Your task to perform on an android device: Open internet settings Image 0: 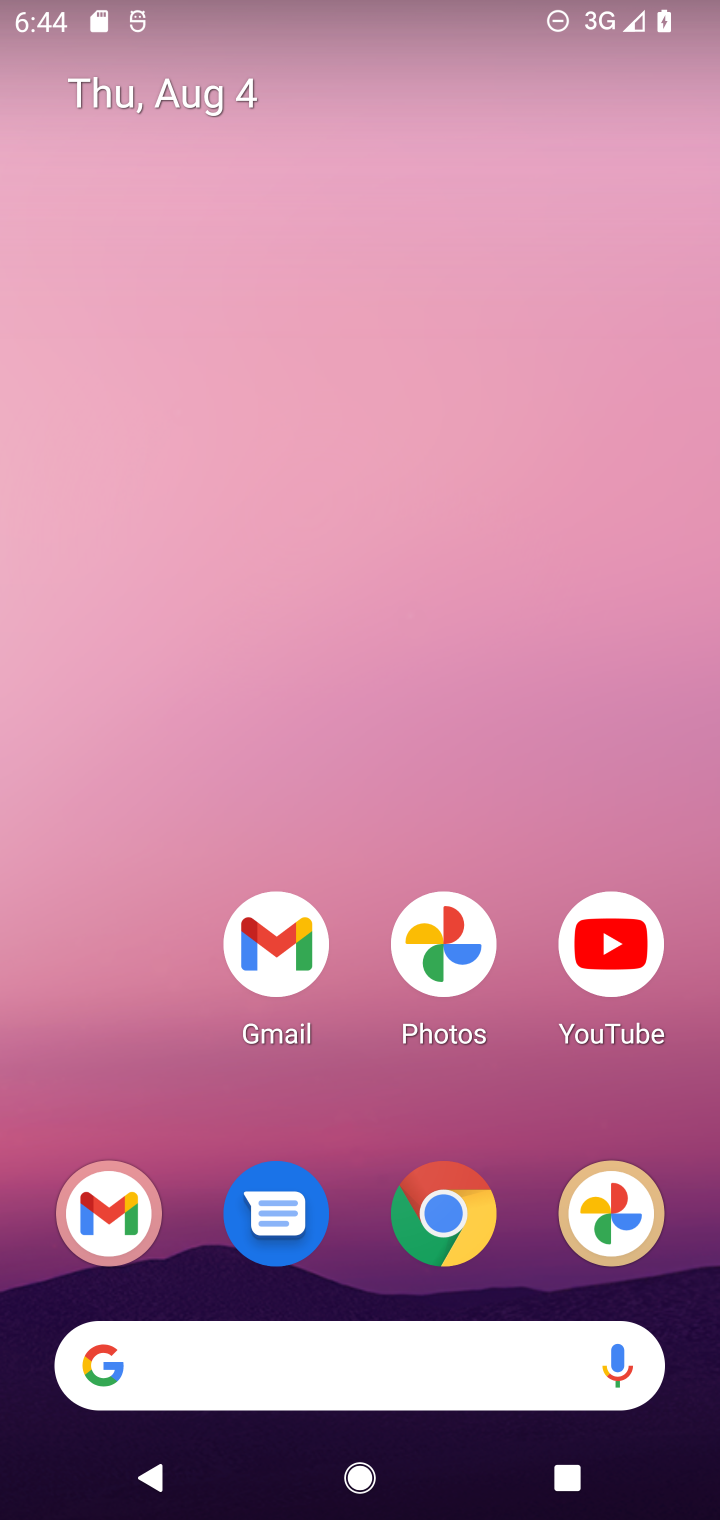
Step 0: press home button
Your task to perform on an android device: Open internet settings Image 1: 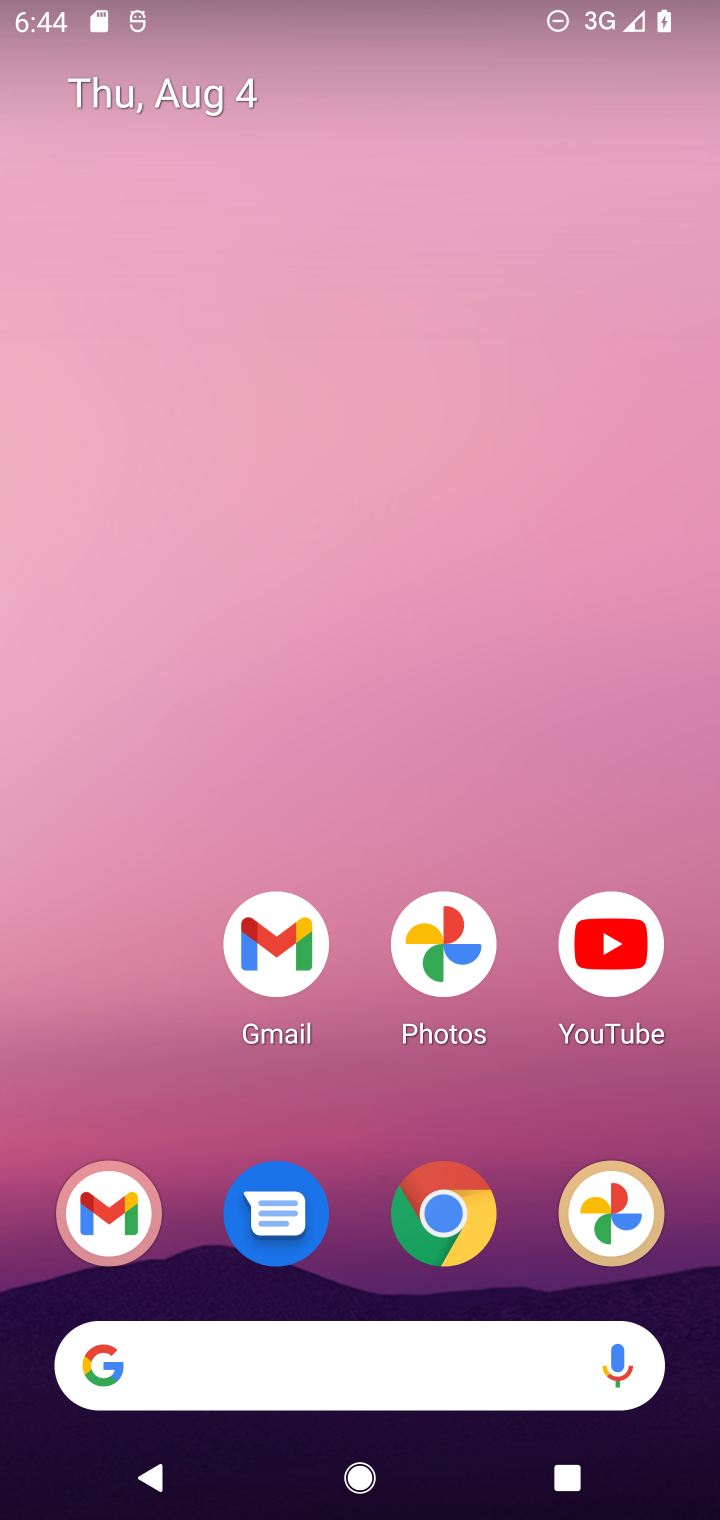
Step 1: drag from (175, 1136) to (147, 274)
Your task to perform on an android device: Open internet settings Image 2: 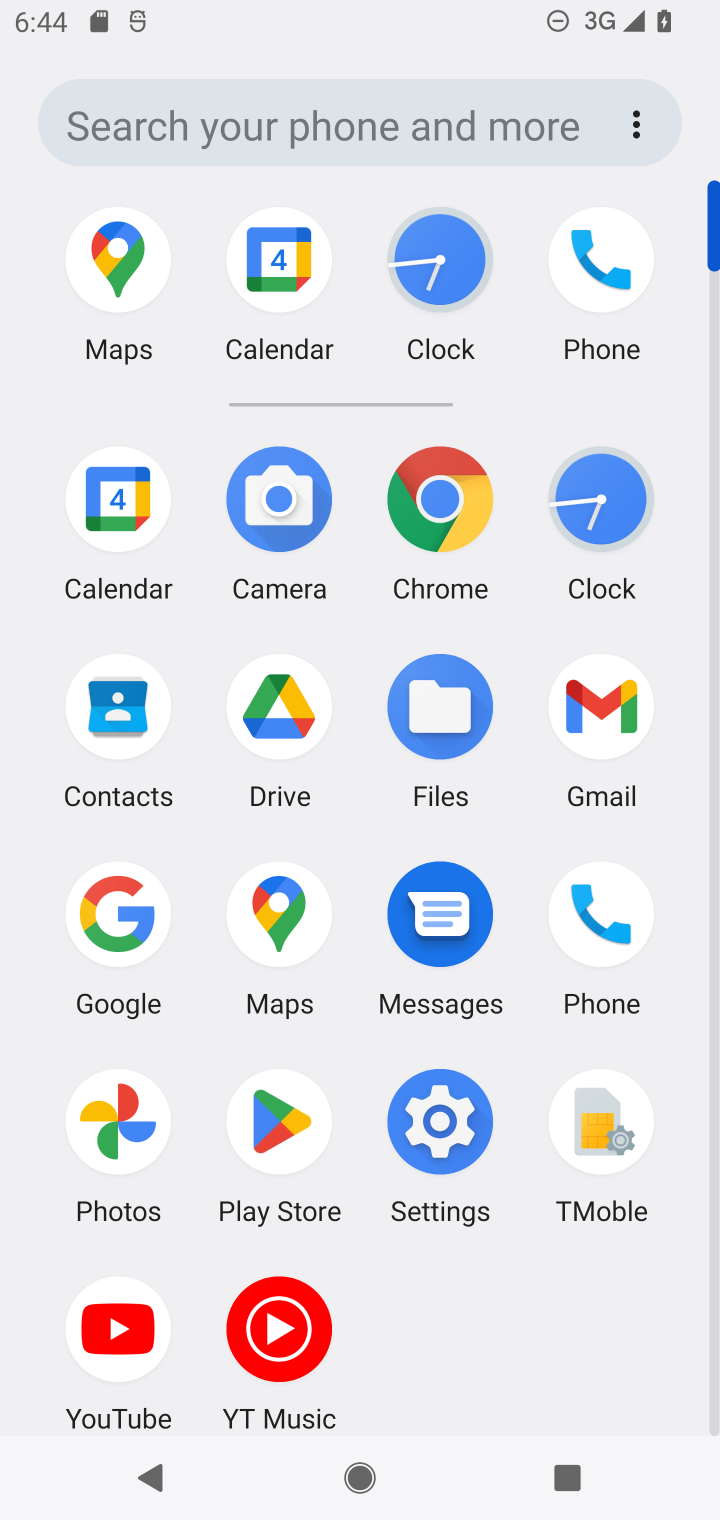
Step 2: click (445, 1130)
Your task to perform on an android device: Open internet settings Image 3: 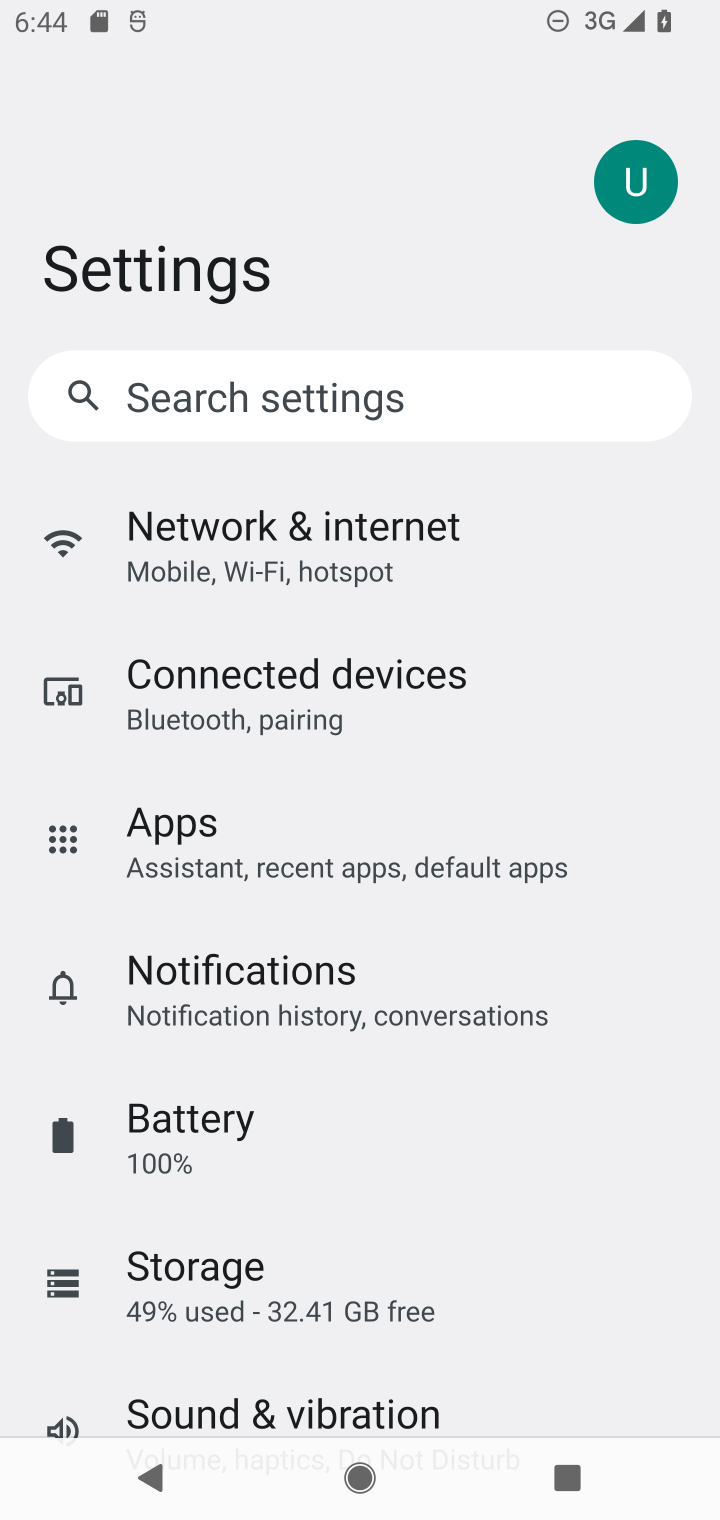
Step 3: drag from (582, 1250) to (564, 833)
Your task to perform on an android device: Open internet settings Image 4: 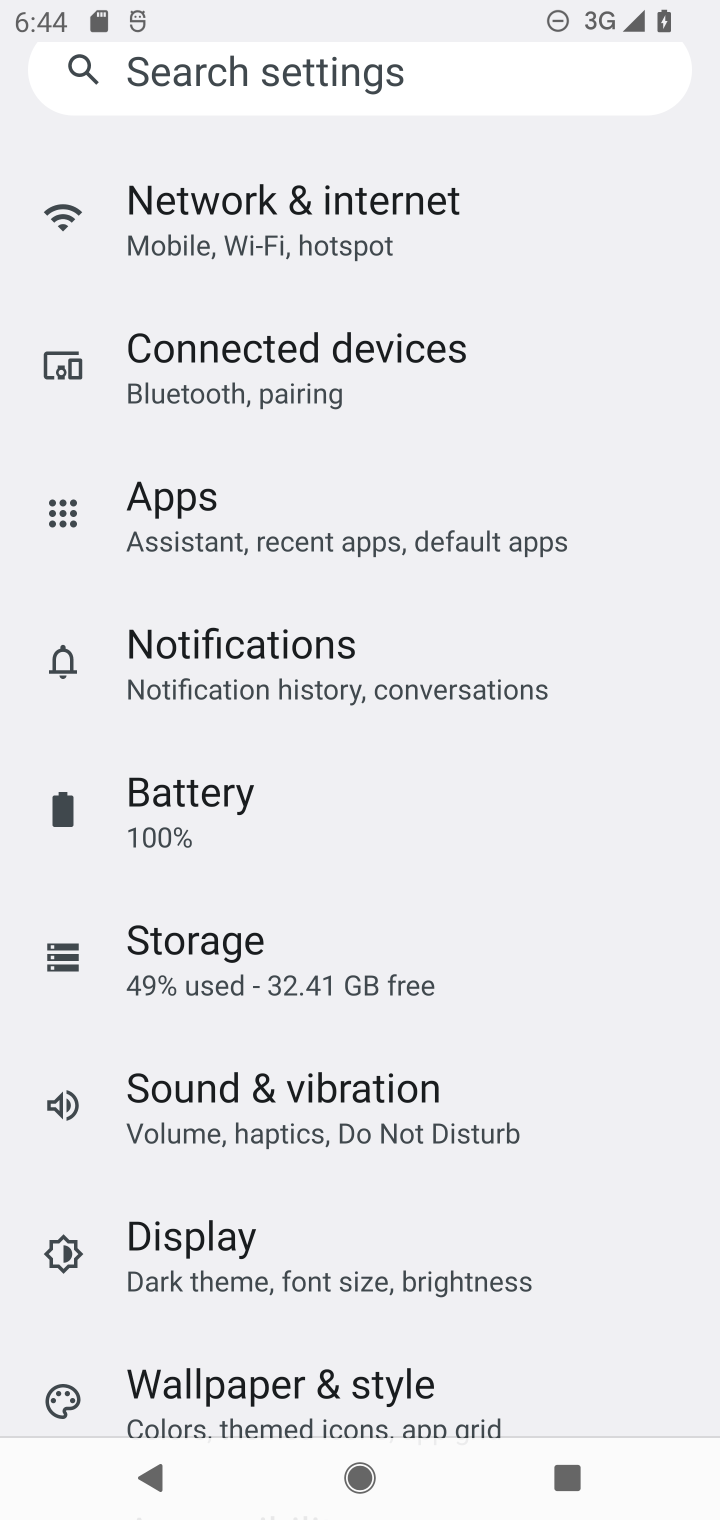
Step 4: drag from (599, 1284) to (616, 1010)
Your task to perform on an android device: Open internet settings Image 5: 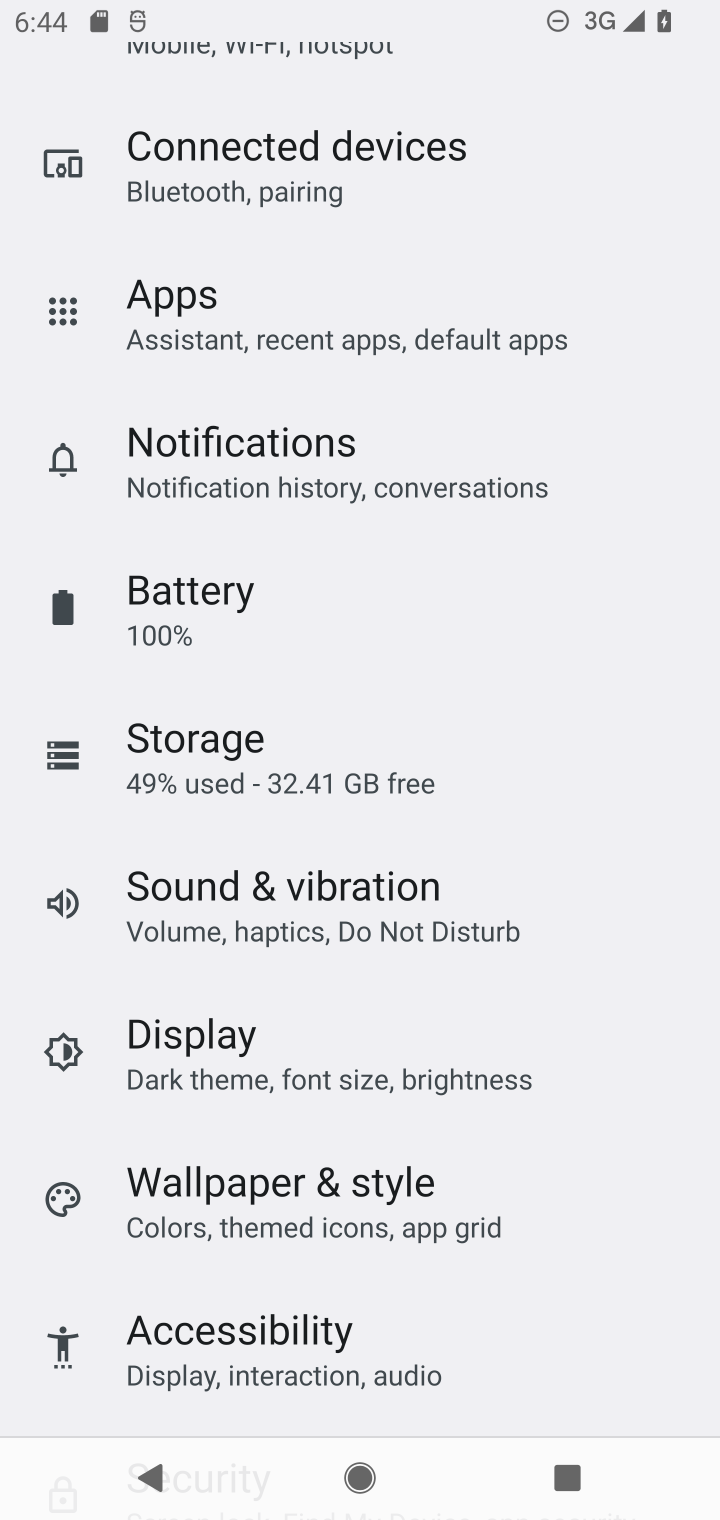
Step 5: drag from (618, 1282) to (626, 1015)
Your task to perform on an android device: Open internet settings Image 6: 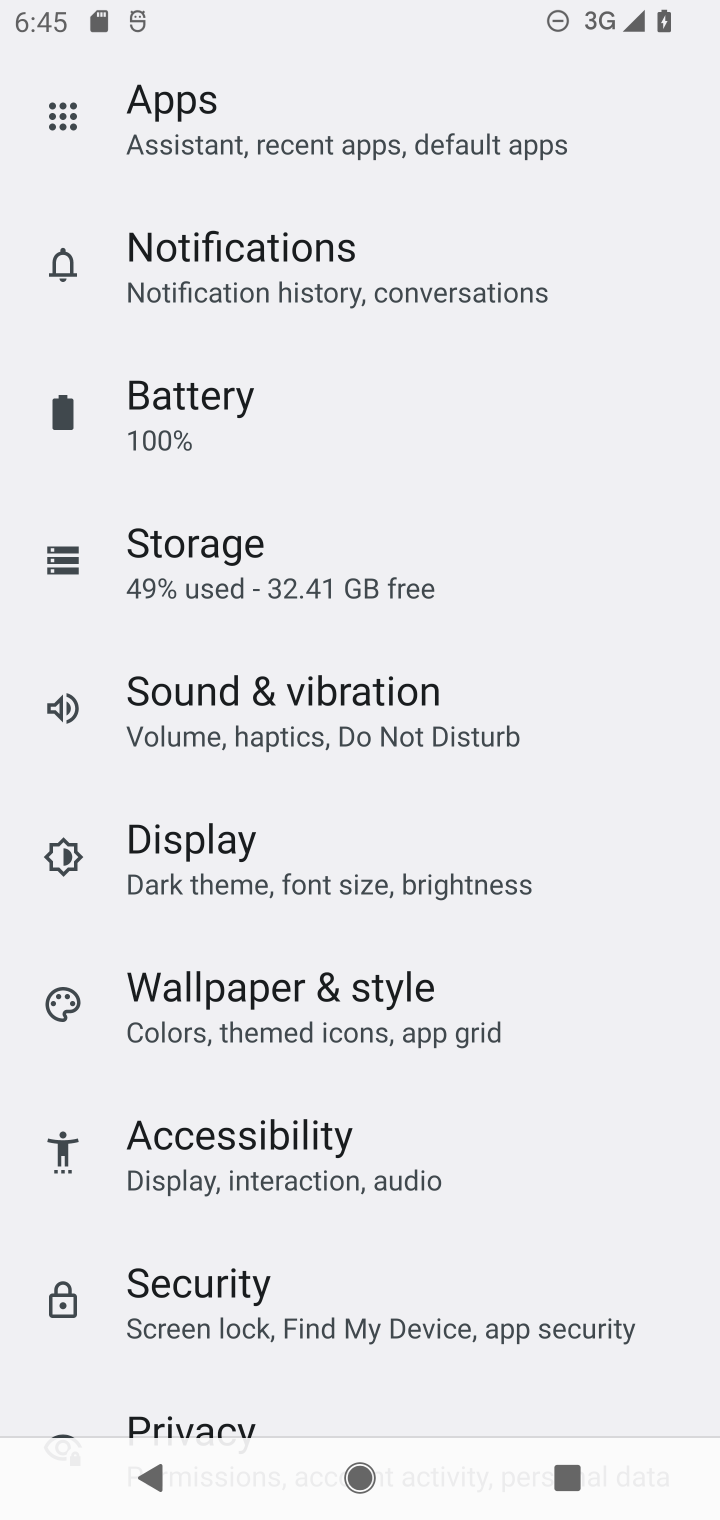
Step 6: drag from (603, 1131) to (587, 845)
Your task to perform on an android device: Open internet settings Image 7: 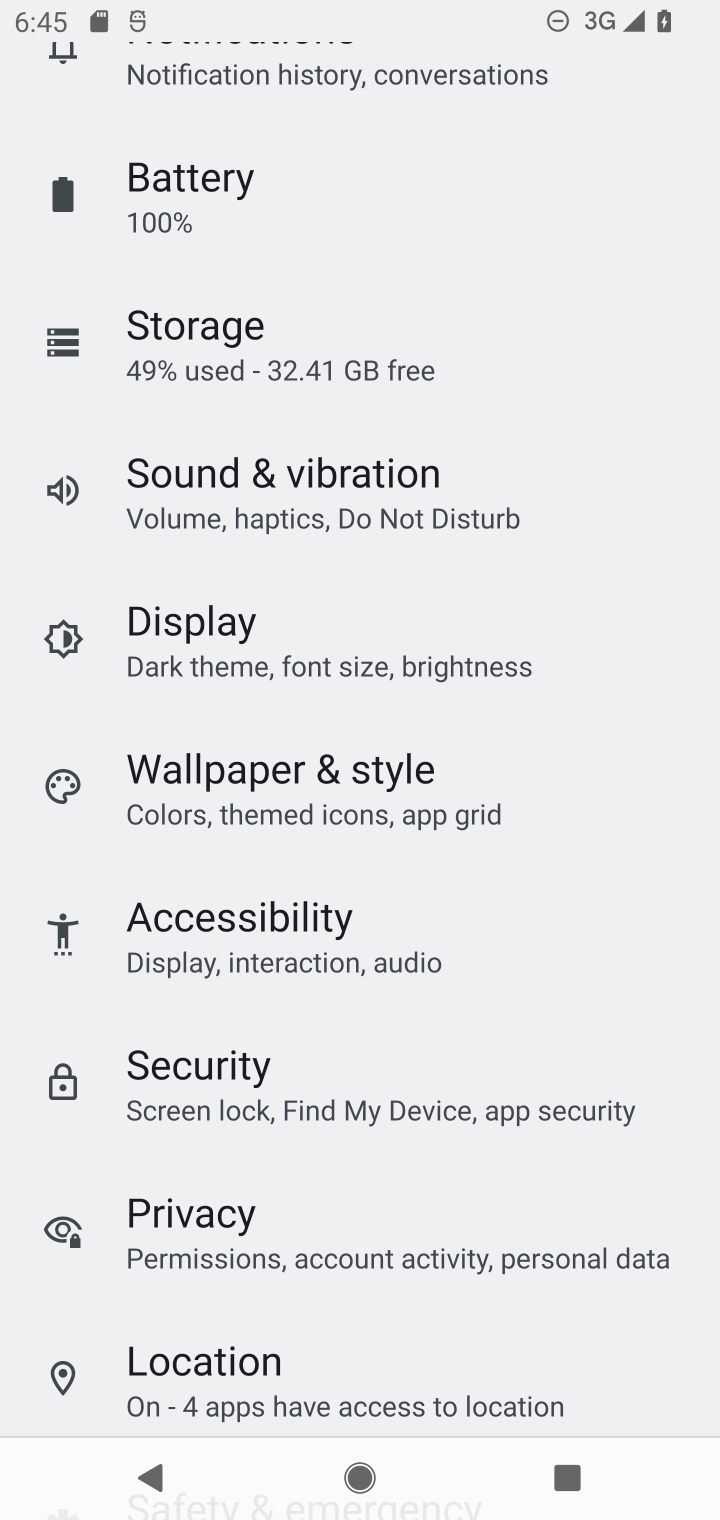
Step 7: drag from (557, 1201) to (558, 866)
Your task to perform on an android device: Open internet settings Image 8: 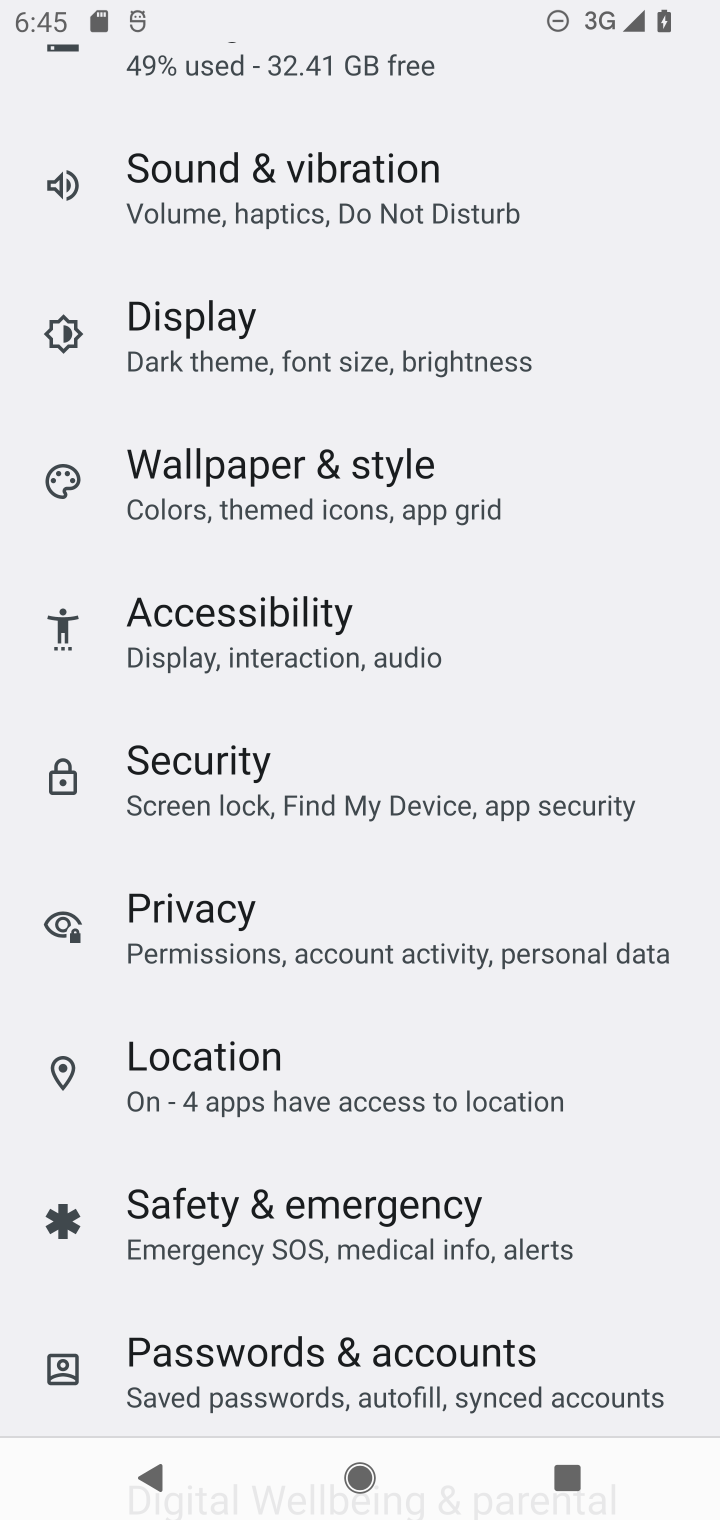
Step 8: drag from (573, 1193) to (528, 789)
Your task to perform on an android device: Open internet settings Image 9: 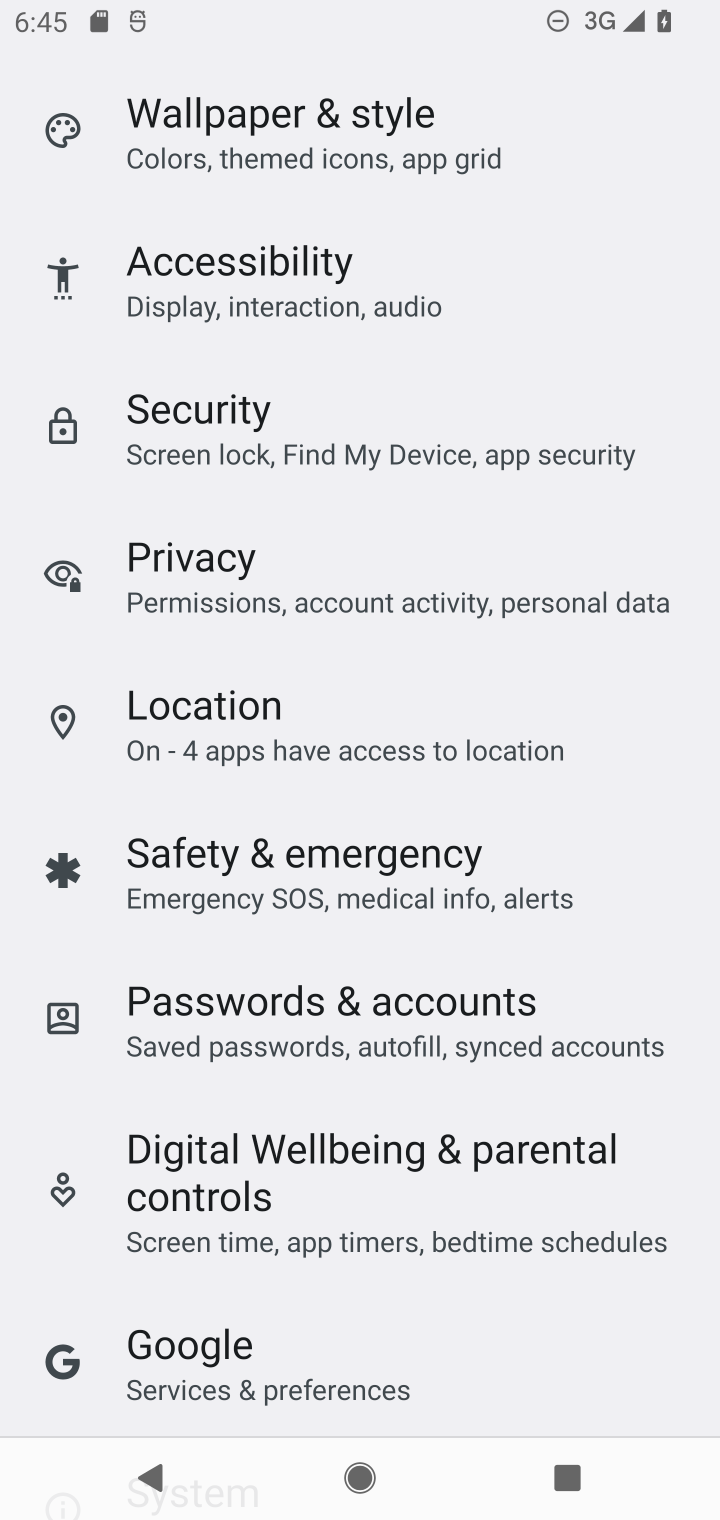
Step 9: drag from (534, 1244) to (534, 862)
Your task to perform on an android device: Open internet settings Image 10: 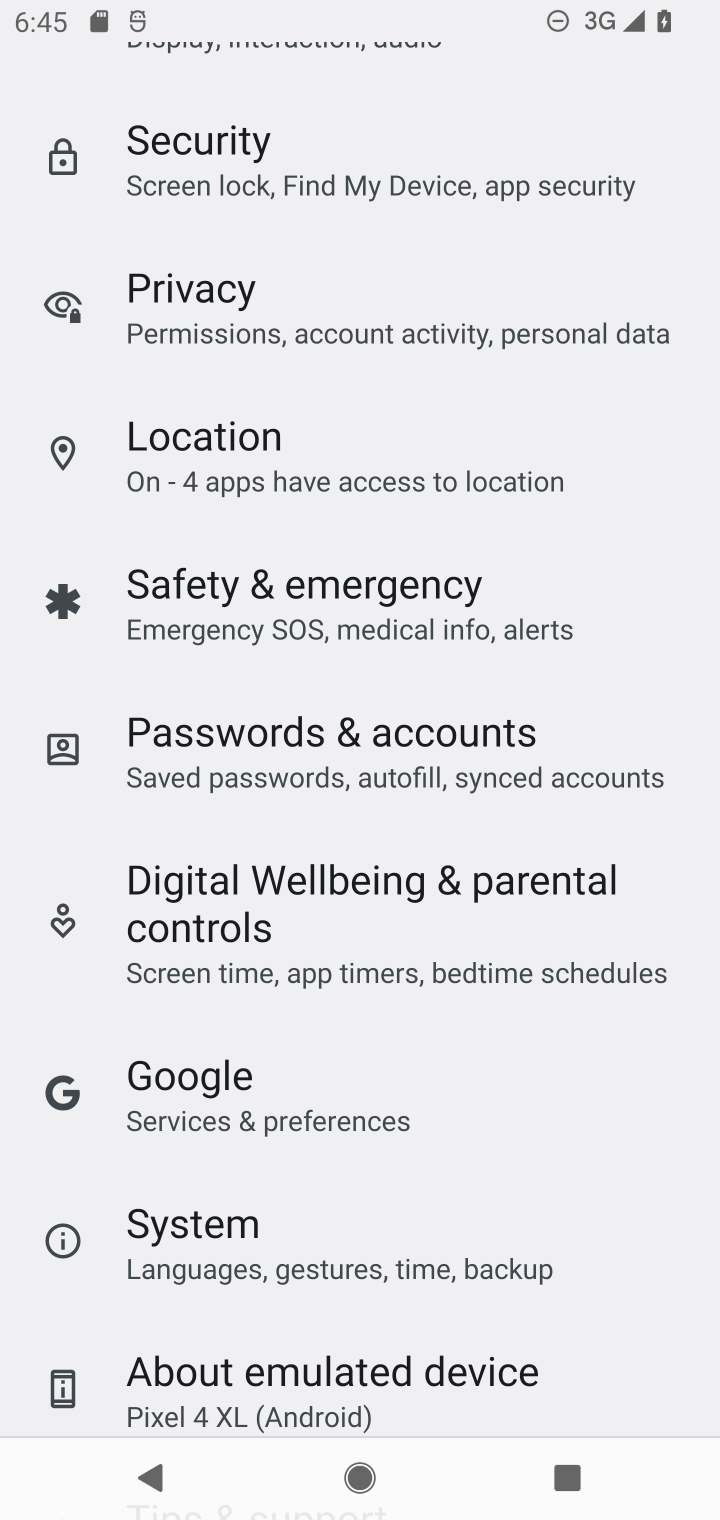
Step 10: drag from (495, 1191) to (495, 902)
Your task to perform on an android device: Open internet settings Image 11: 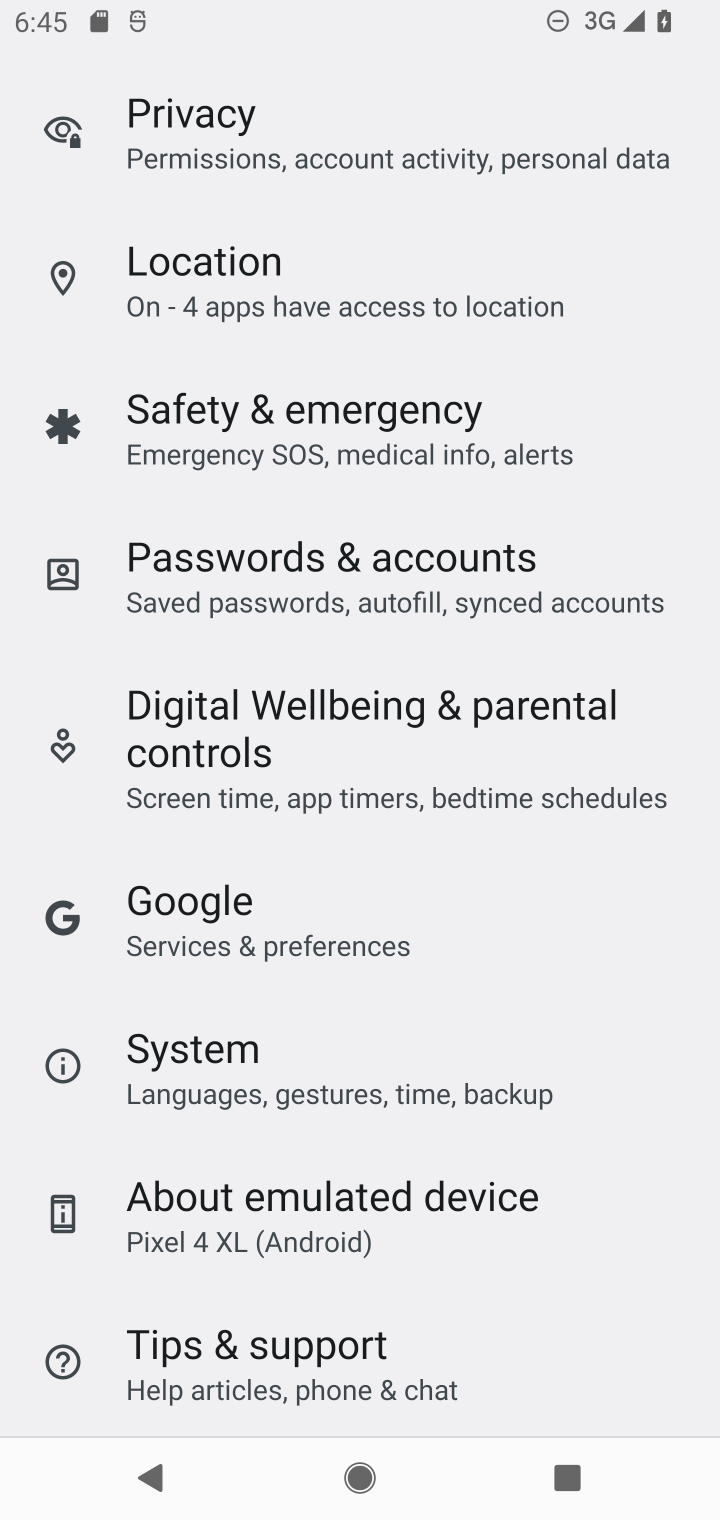
Step 11: drag from (503, 1257) to (506, 868)
Your task to perform on an android device: Open internet settings Image 12: 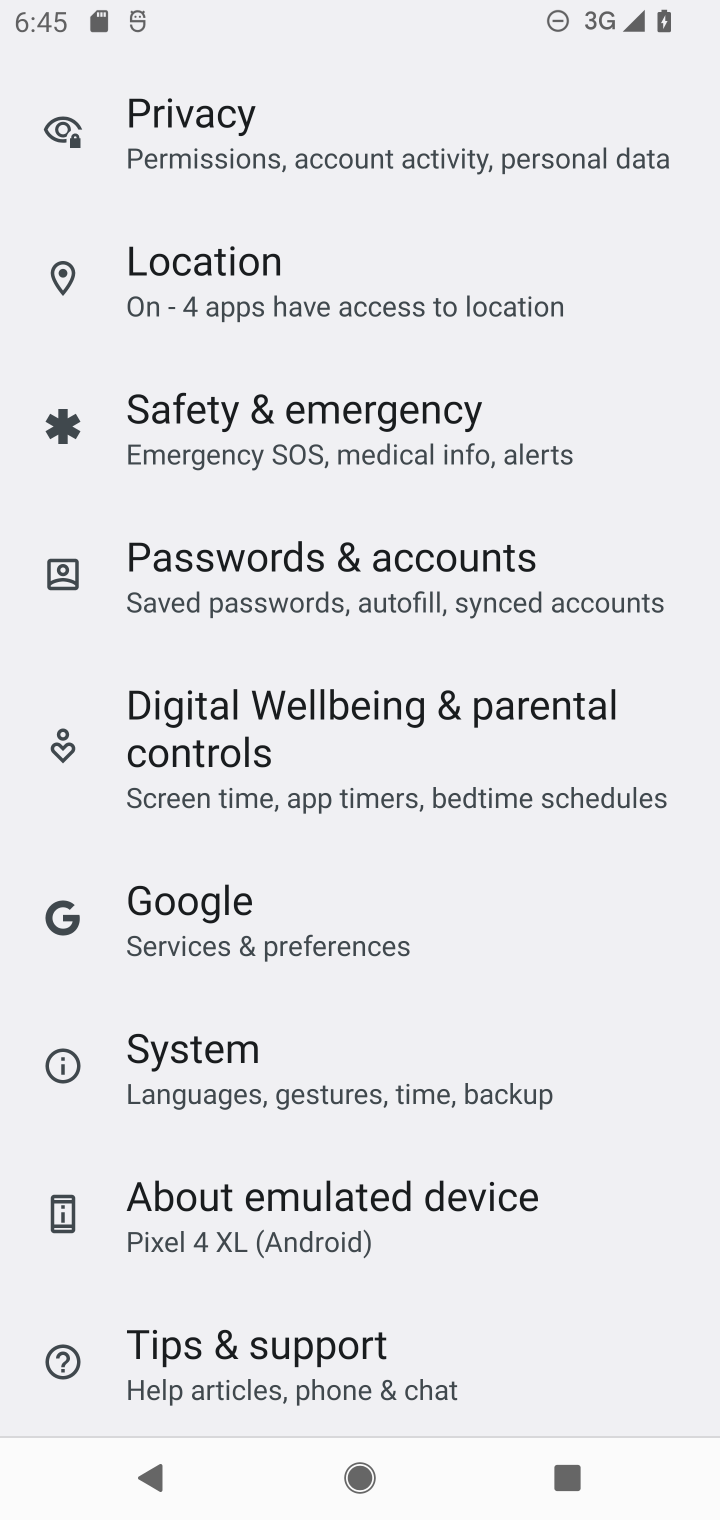
Step 12: drag from (579, 838) to (573, 1126)
Your task to perform on an android device: Open internet settings Image 13: 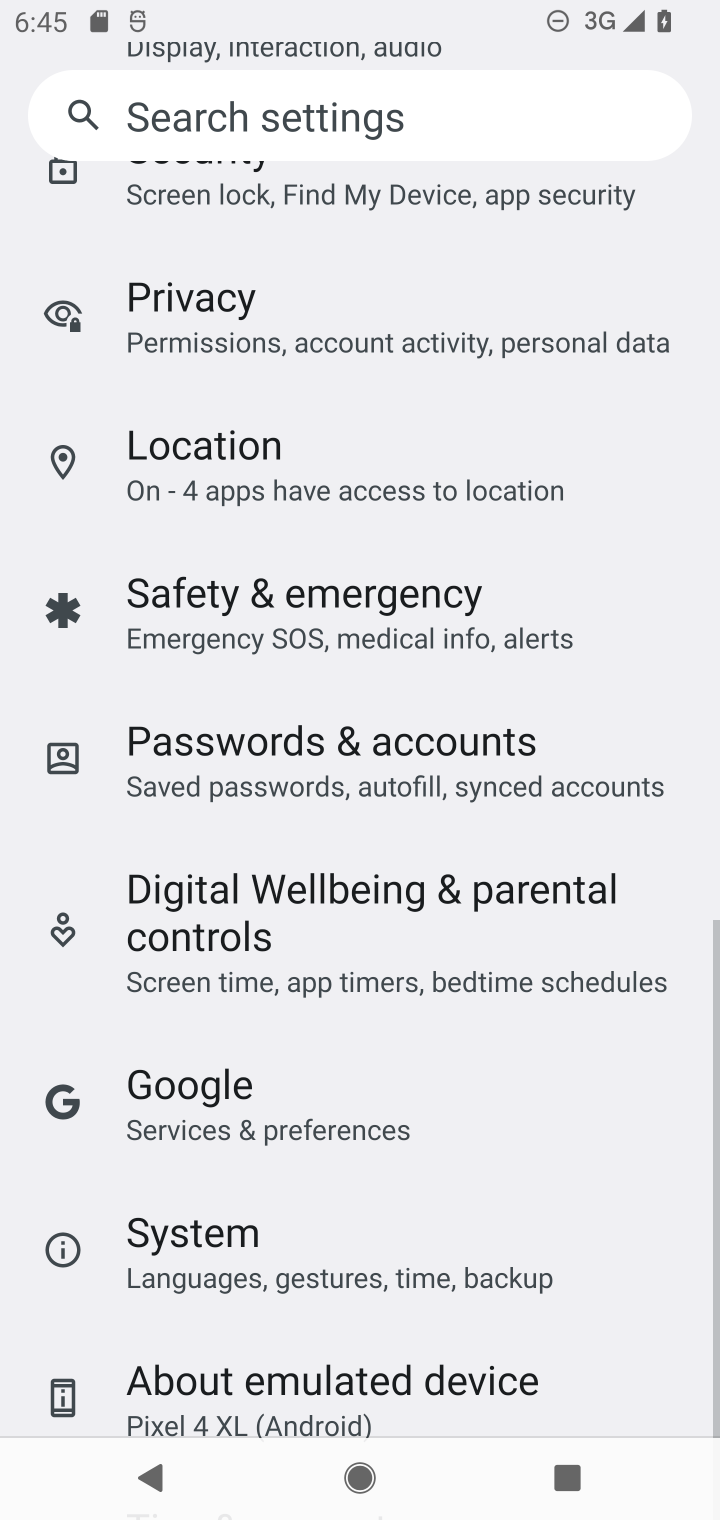
Step 13: drag from (629, 580) to (615, 906)
Your task to perform on an android device: Open internet settings Image 14: 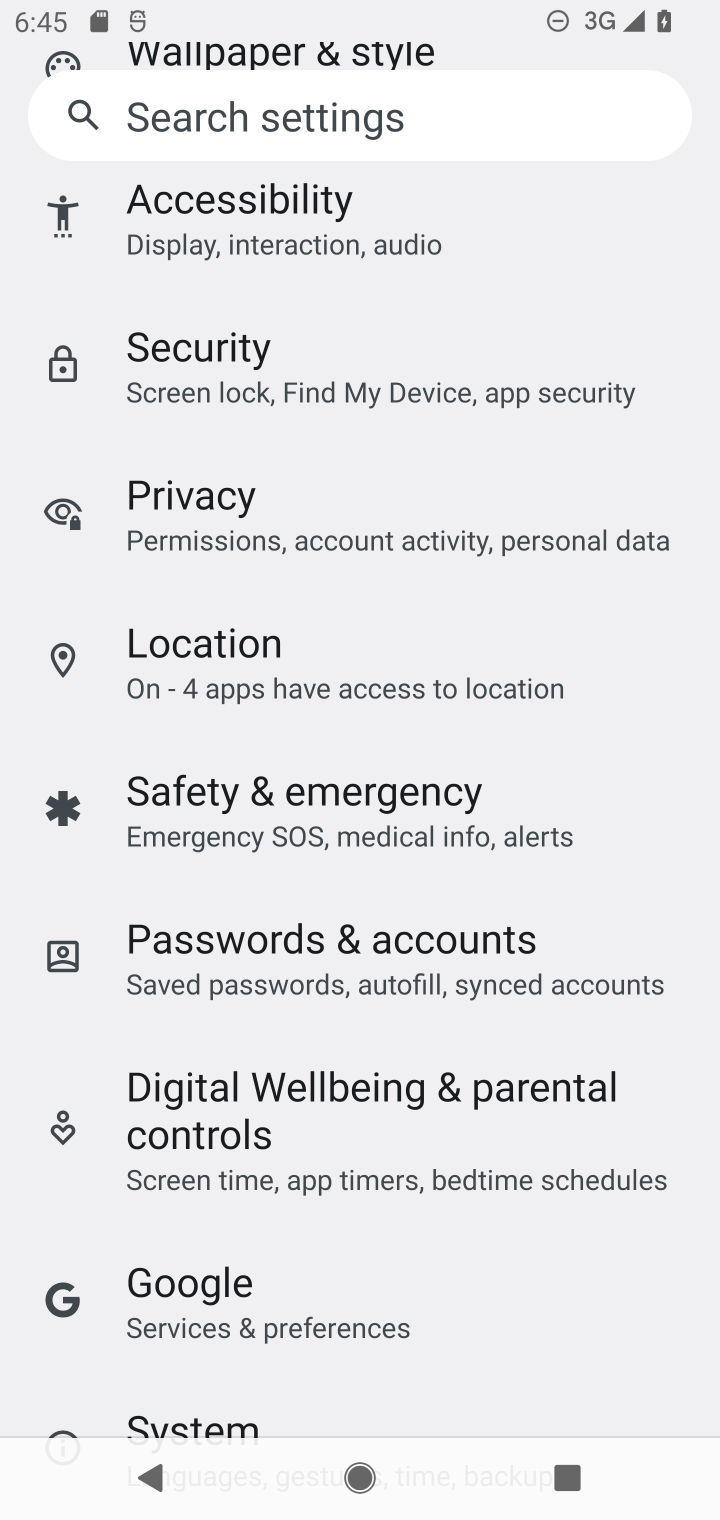
Step 14: drag from (620, 592) to (629, 959)
Your task to perform on an android device: Open internet settings Image 15: 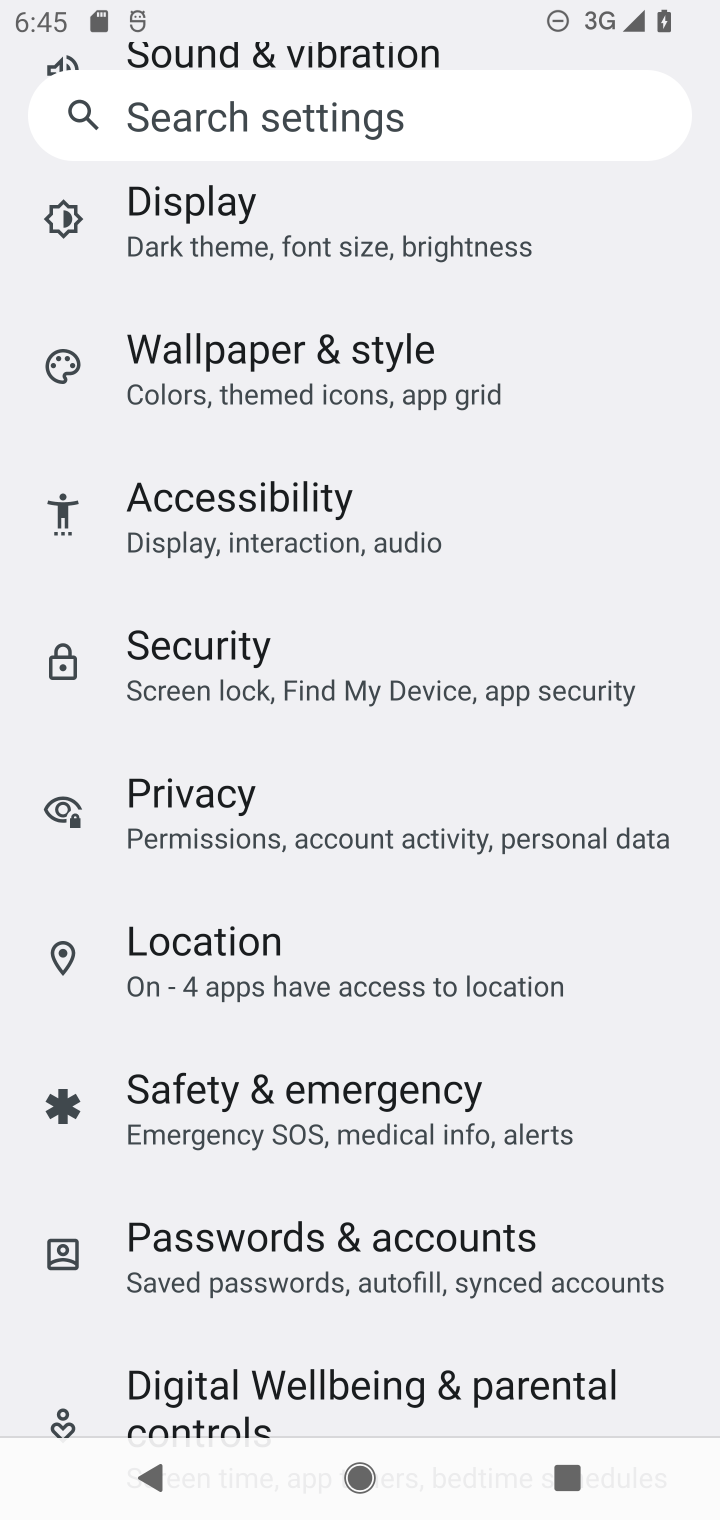
Step 15: drag from (605, 441) to (617, 861)
Your task to perform on an android device: Open internet settings Image 16: 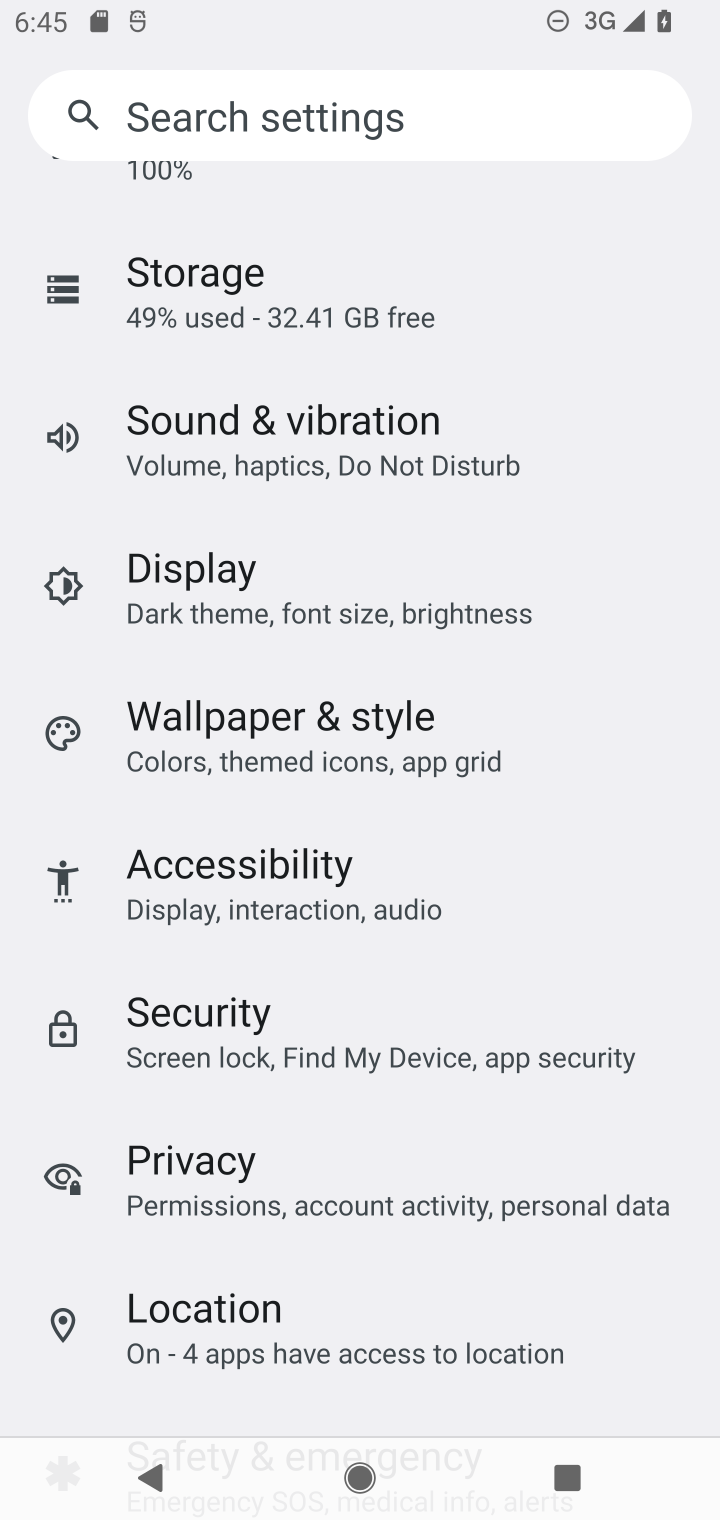
Step 16: drag from (601, 446) to (593, 905)
Your task to perform on an android device: Open internet settings Image 17: 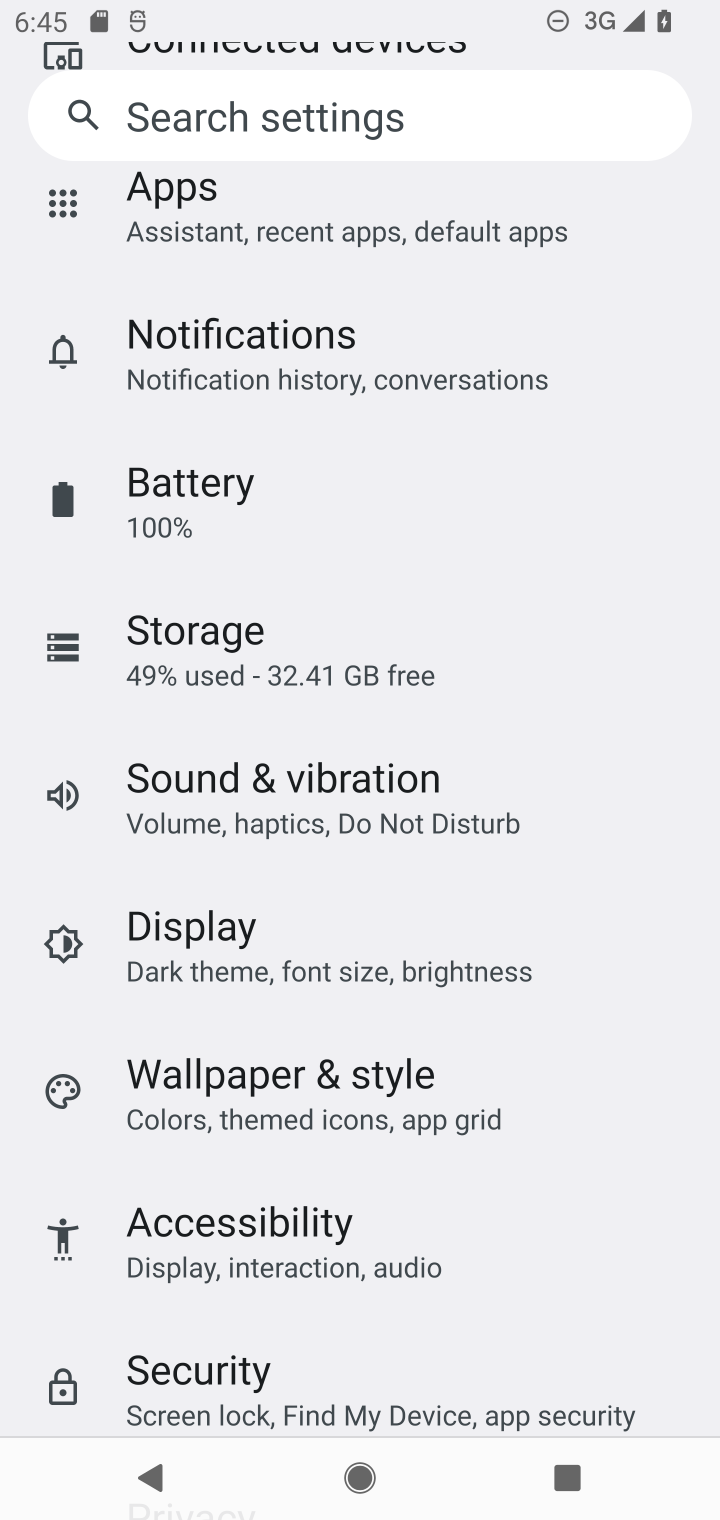
Step 17: drag from (629, 434) to (626, 834)
Your task to perform on an android device: Open internet settings Image 18: 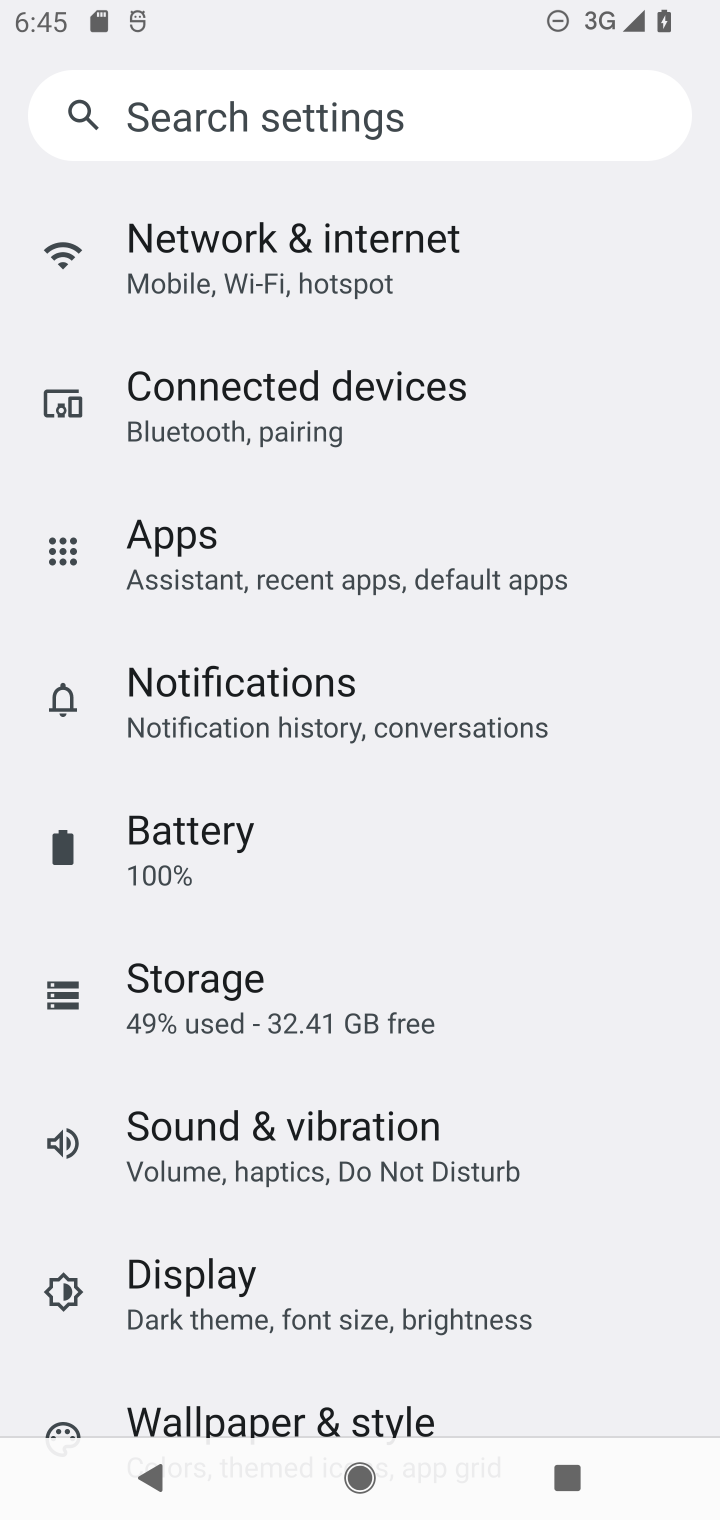
Step 18: drag from (616, 322) to (616, 742)
Your task to perform on an android device: Open internet settings Image 19: 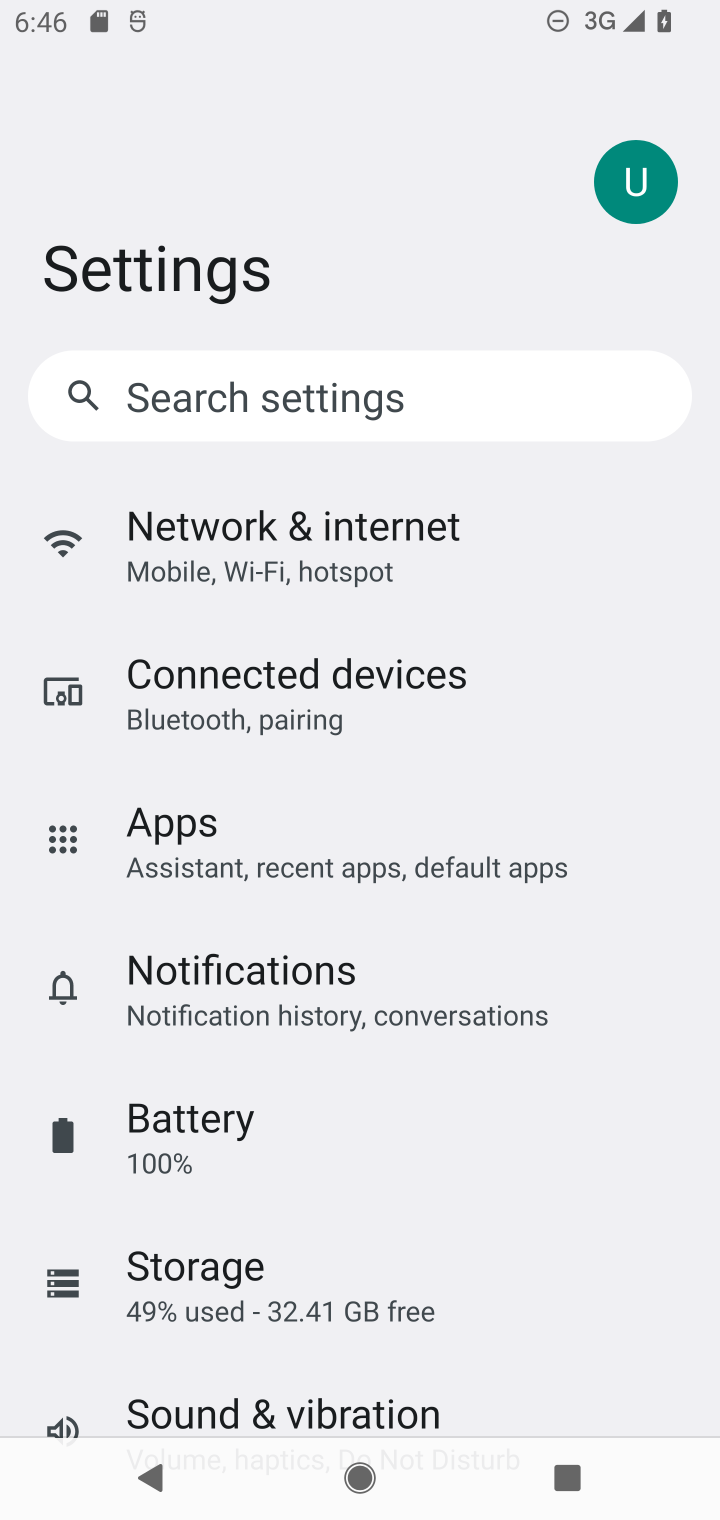
Step 19: click (351, 552)
Your task to perform on an android device: Open internet settings Image 20: 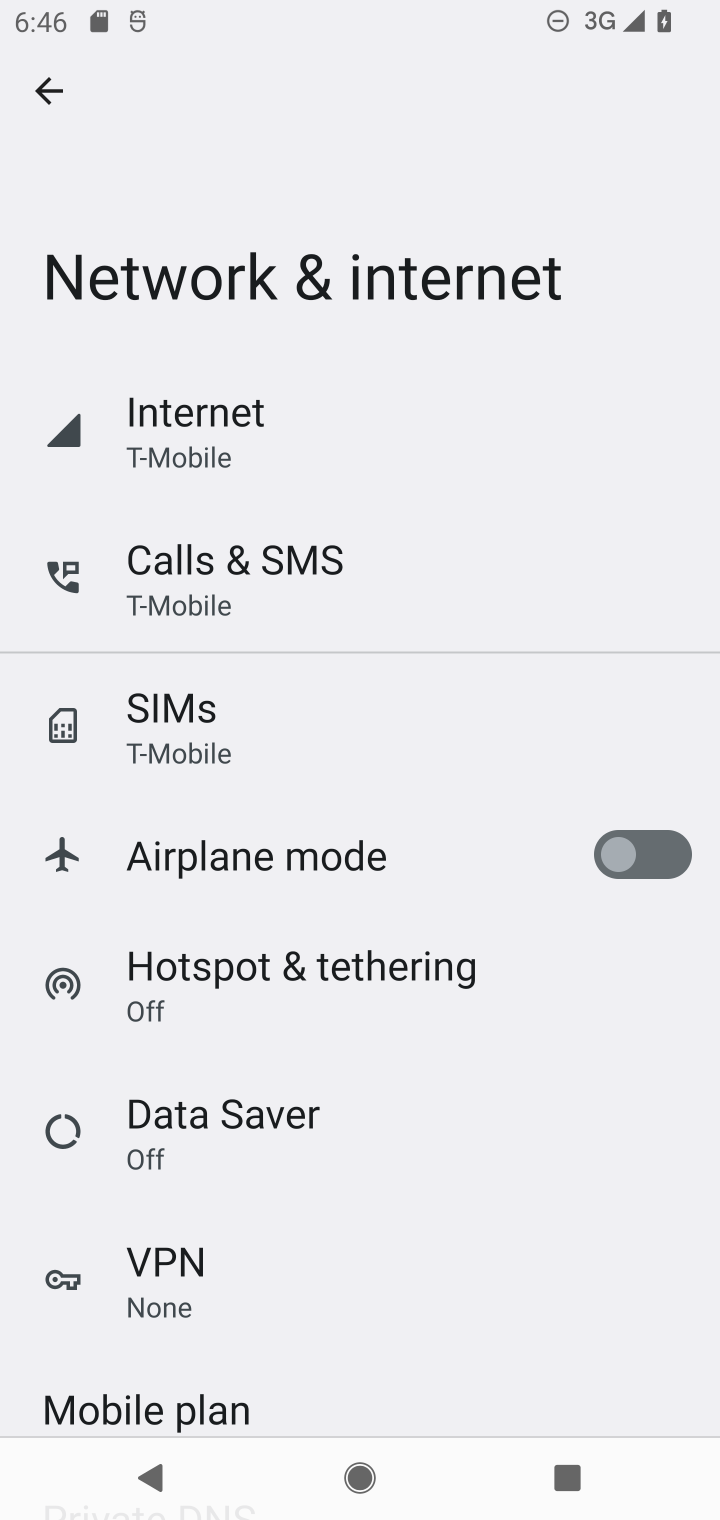
Step 20: click (323, 427)
Your task to perform on an android device: Open internet settings Image 21: 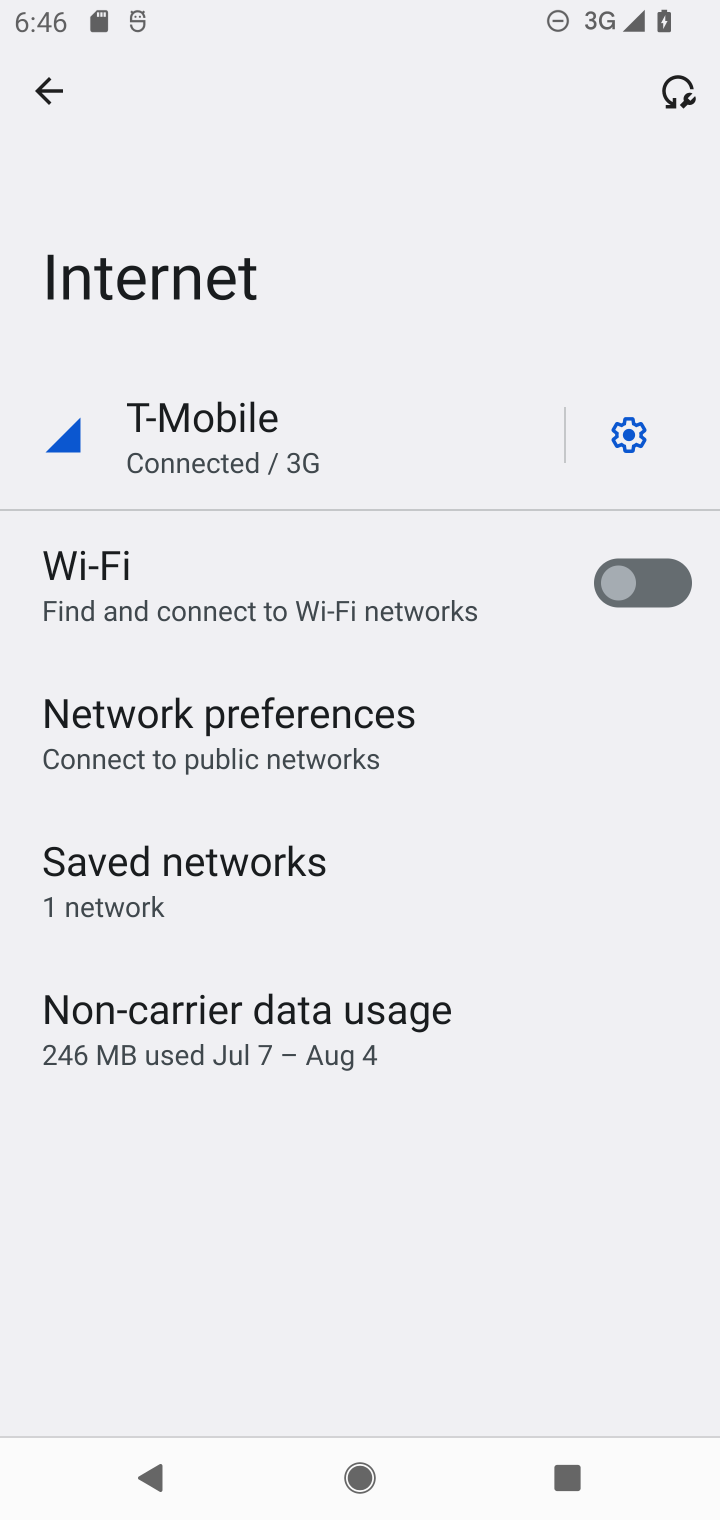
Step 21: task complete